Your task to perform on an android device: turn vacation reply on in the gmail app Image 0: 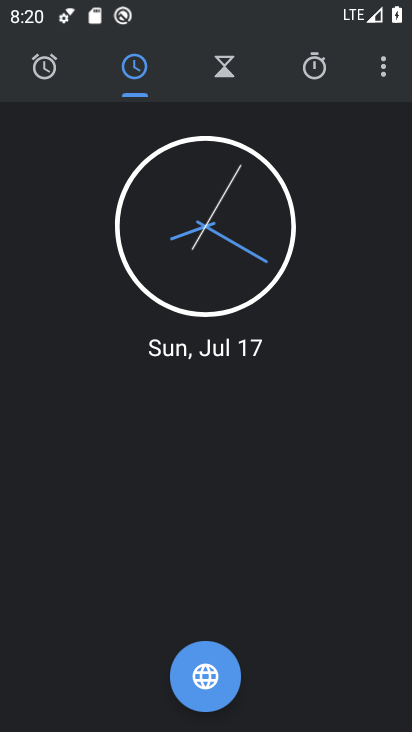
Step 0: press home button
Your task to perform on an android device: turn vacation reply on in the gmail app Image 1: 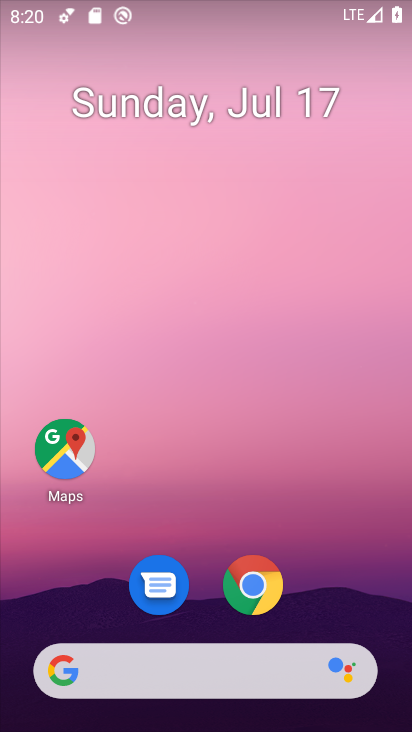
Step 1: drag from (319, 595) to (264, 94)
Your task to perform on an android device: turn vacation reply on in the gmail app Image 2: 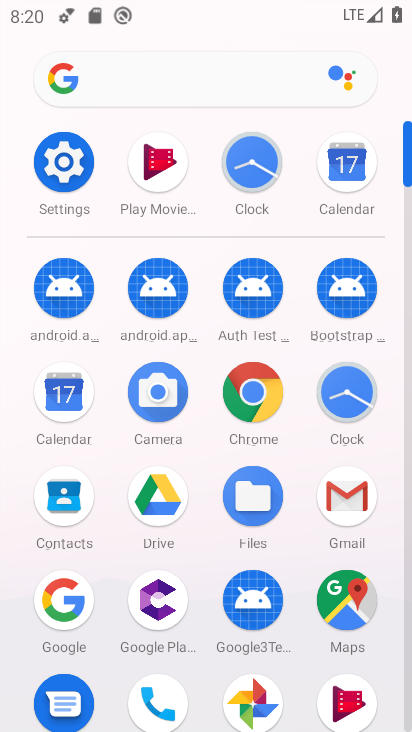
Step 2: click (364, 508)
Your task to perform on an android device: turn vacation reply on in the gmail app Image 3: 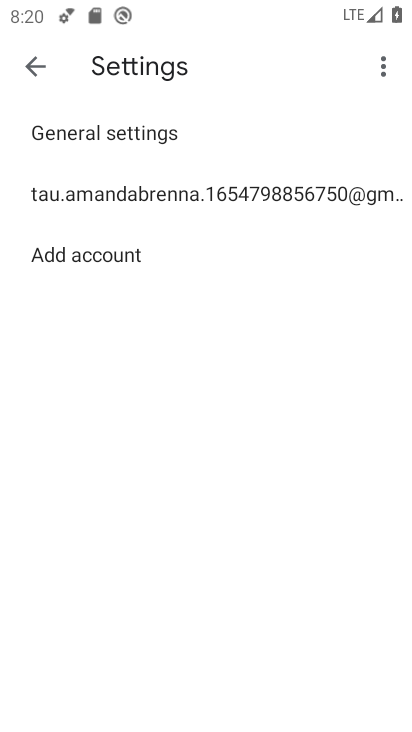
Step 3: click (184, 193)
Your task to perform on an android device: turn vacation reply on in the gmail app Image 4: 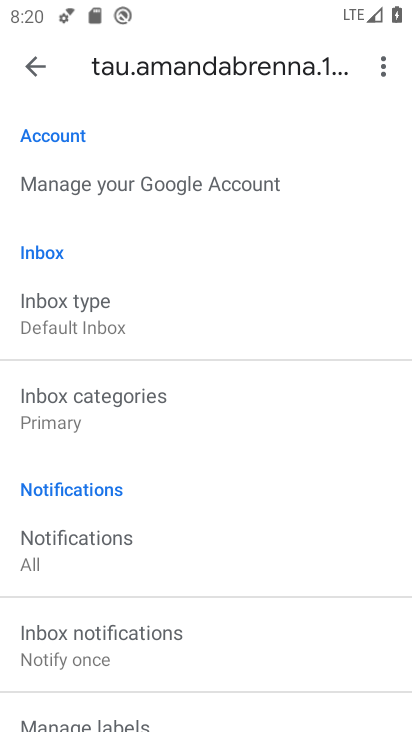
Step 4: drag from (196, 578) to (230, 115)
Your task to perform on an android device: turn vacation reply on in the gmail app Image 5: 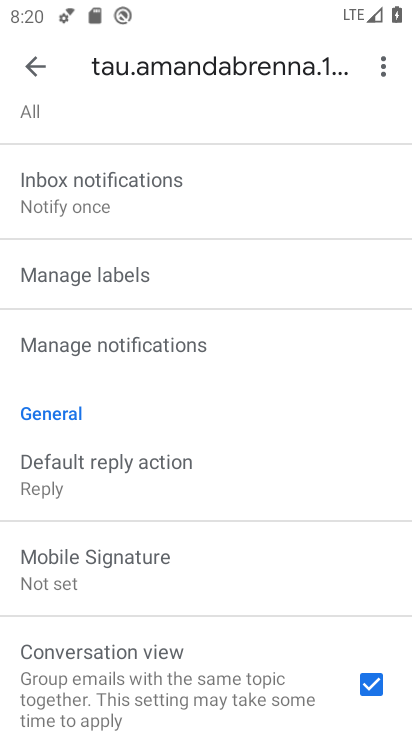
Step 5: drag from (243, 566) to (238, 235)
Your task to perform on an android device: turn vacation reply on in the gmail app Image 6: 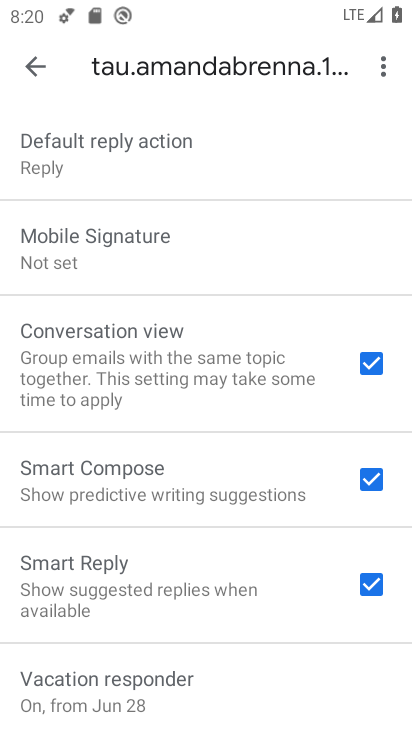
Step 6: drag from (241, 609) to (228, 293)
Your task to perform on an android device: turn vacation reply on in the gmail app Image 7: 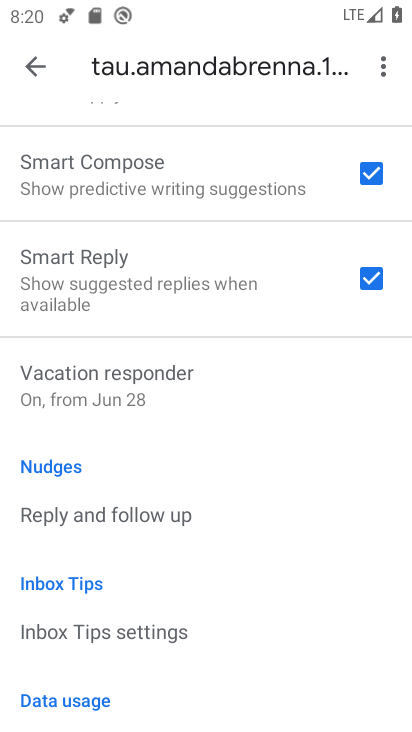
Step 7: click (222, 375)
Your task to perform on an android device: turn vacation reply on in the gmail app Image 8: 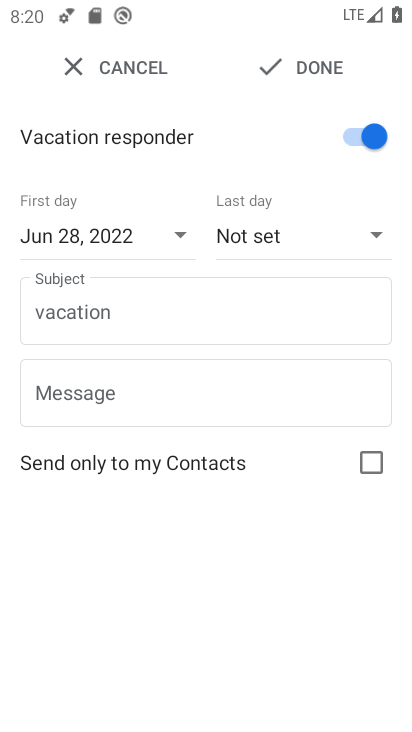
Step 8: task complete